Your task to perform on an android device: Open Google Chrome and open the bookmarks view Image 0: 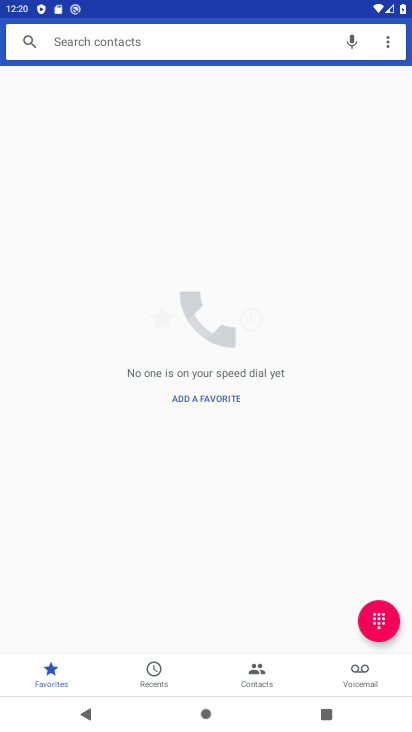
Step 0: press home button
Your task to perform on an android device: Open Google Chrome and open the bookmarks view Image 1: 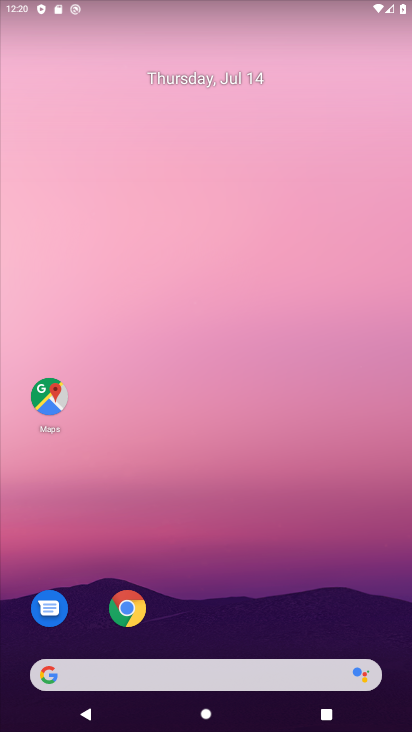
Step 1: drag from (350, 613) to (389, 126)
Your task to perform on an android device: Open Google Chrome and open the bookmarks view Image 2: 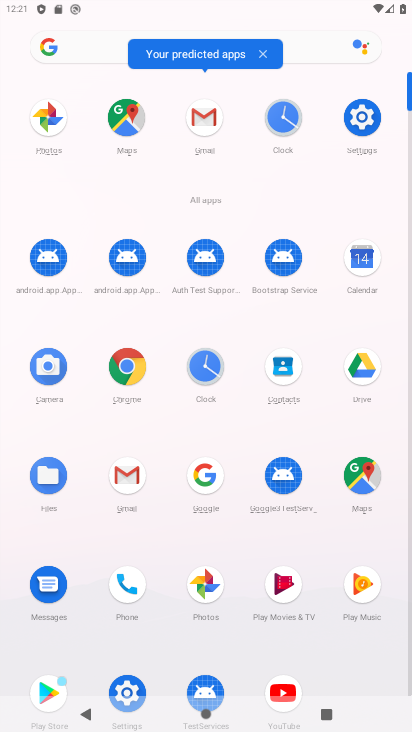
Step 2: click (135, 366)
Your task to perform on an android device: Open Google Chrome and open the bookmarks view Image 3: 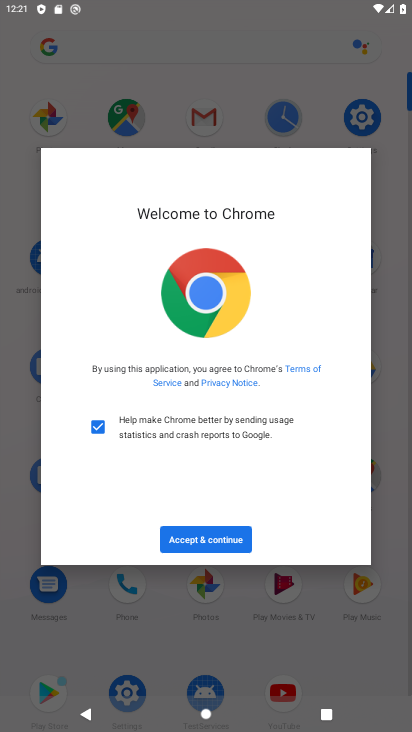
Step 3: click (221, 539)
Your task to perform on an android device: Open Google Chrome and open the bookmarks view Image 4: 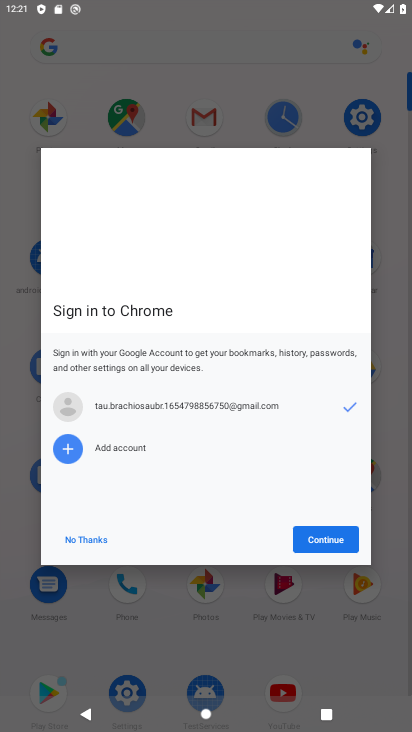
Step 4: click (319, 538)
Your task to perform on an android device: Open Google Chrome and open the bookmarks view Image 5: 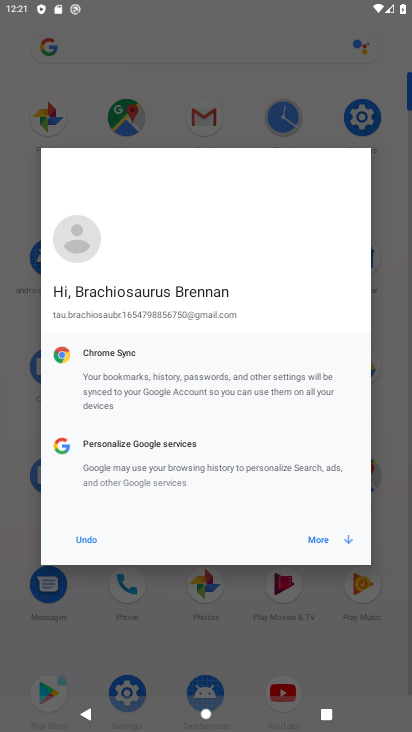
Step 5: click (319, 538)
Your task to perform on an android device: Open Google Chrome and open the bookmarks view Image 6: 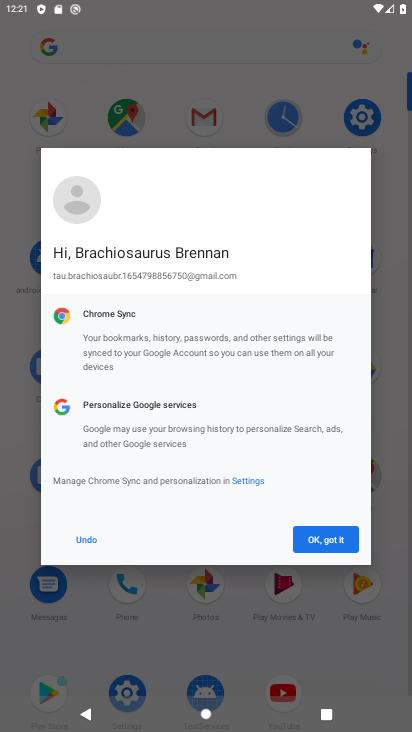
Step 6: click (319, 538)
Your task to perform on an android device: Open Google Chrome and open the bookmarks view Image 7: 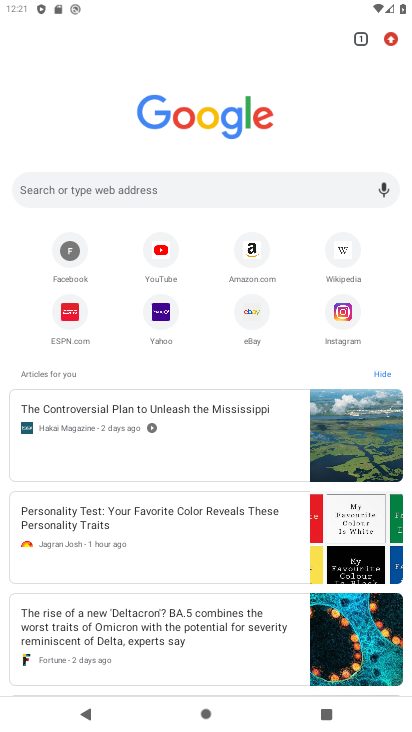
Step 7: click (389, 41)
Your task to perform on an android device: Open Google Chrome and open the bookmarks view Image 8: 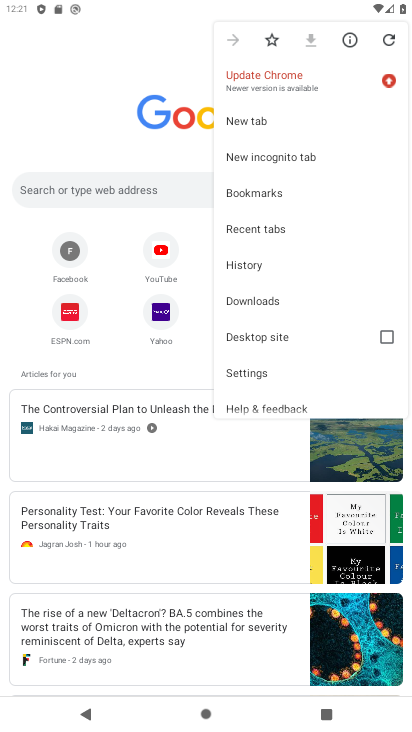
Step 8: click (311, 194)
Your task to perform on an android device: Open Google Chrome and open the bookmarks view Image 9: 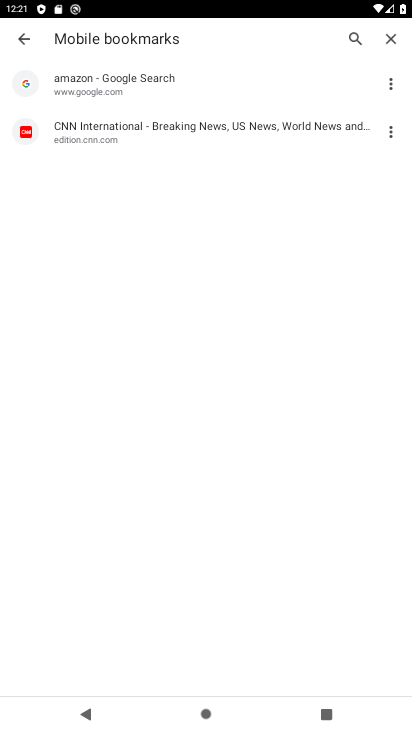
Step 9: task complete